Your task to perform on an android device: Go to internet settings Image 0: 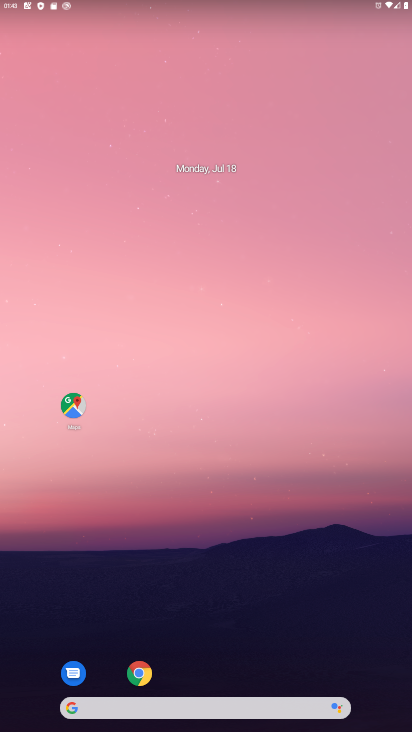
Step 0: drag from (251, 662) to (263, 139)
Your task to perform on an android device: Go to internet settings Image 1: 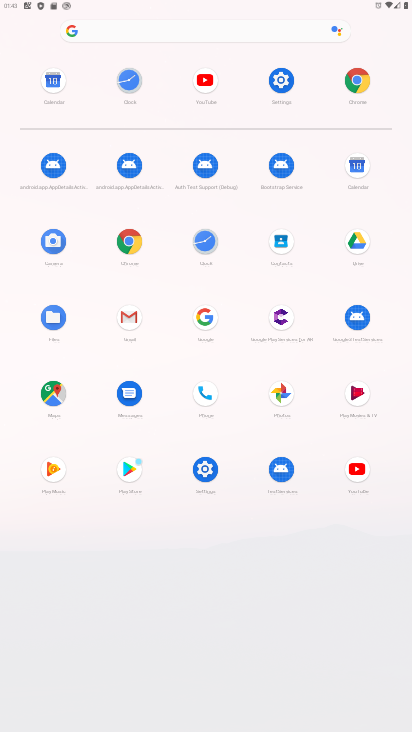
Step 1: click (212, 462)
Your task to perform on an android device: Go to internet settings Image 2: 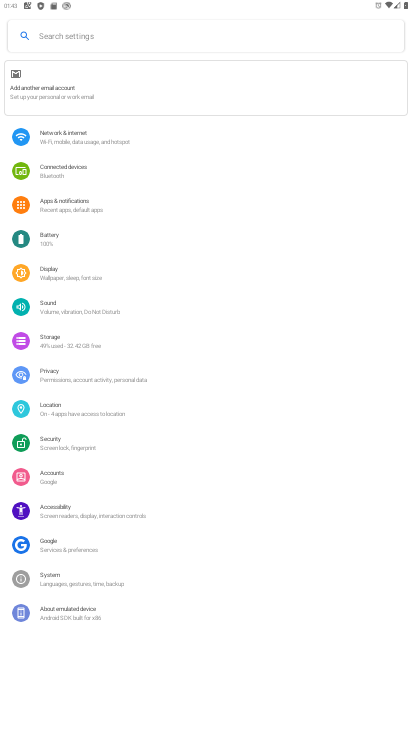
Step 2: click (165, 94)
Your task to perform on an android device: Go to internet settings Image 3: 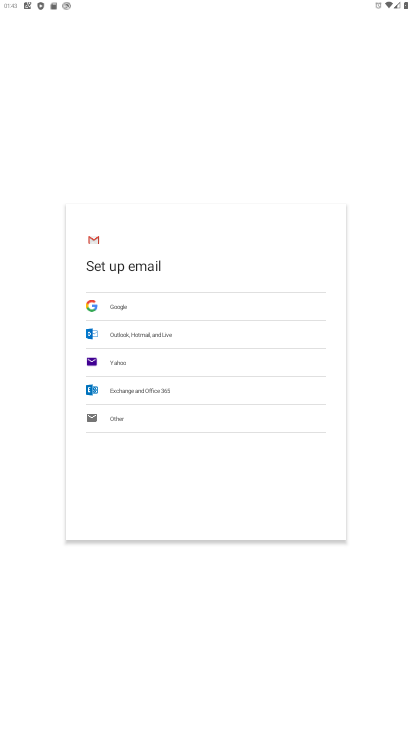
Step 3: press back button
Your task to perform on an android device: Go to internet settings Image 4: 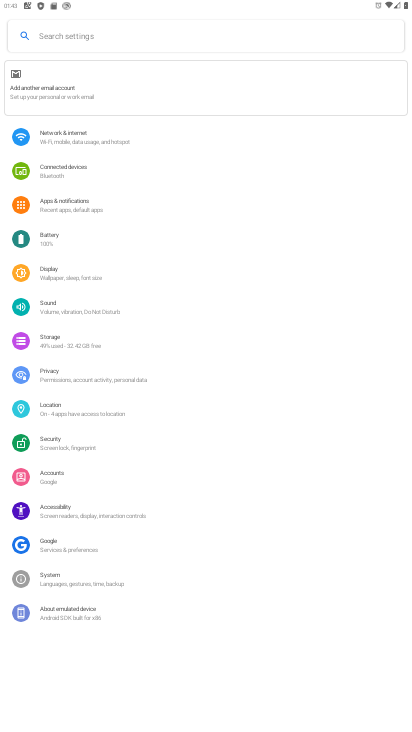
Step 4: click (141, 72)
Your task to perform on an android device: Go to internet settings Image 5: 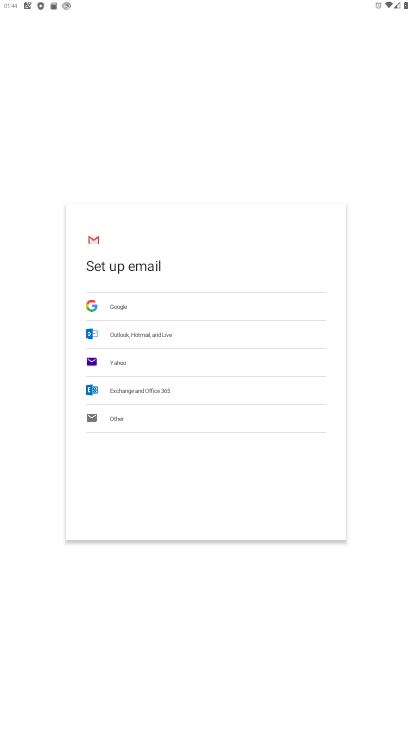
Step 5: press back button
Your task to perform on an android device: Go to internet settings Image 6: 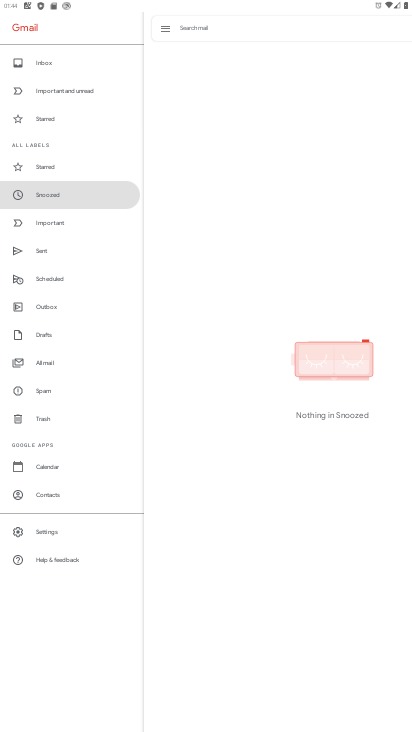
Step 6: press back button
Your task to perform on an android device: Go to internet settings Image 7: 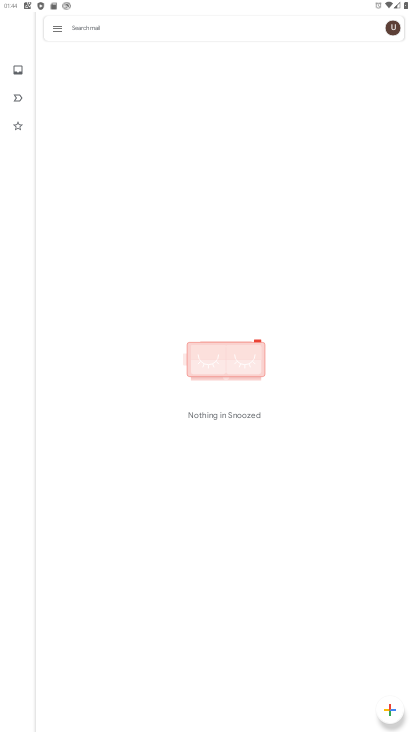
Step 7: press back button
Your task to perform on an android device: Go to internet settings Image 8: 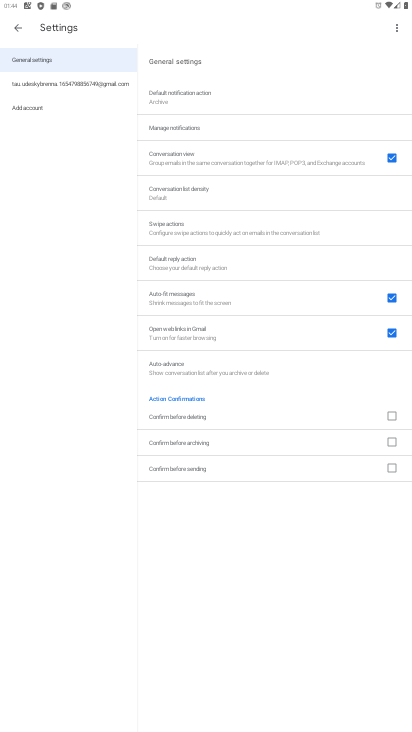
Step 8: press back button
Your task to perform on an android device: Go to internet settings Image 9: 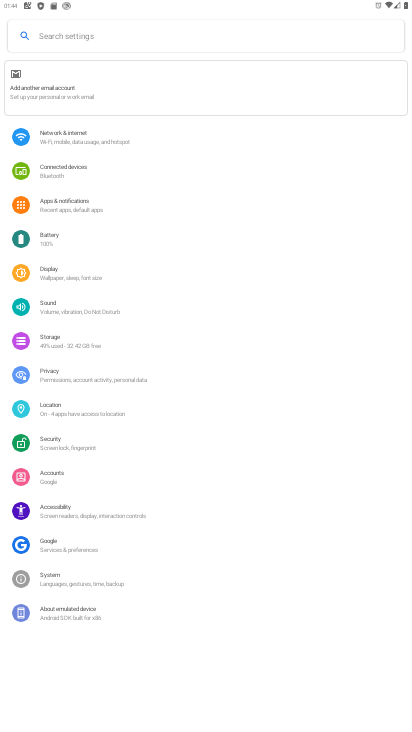
Step 9: click (179, 152)
Your task to perform on an android device: Go to internet settings Image 10: 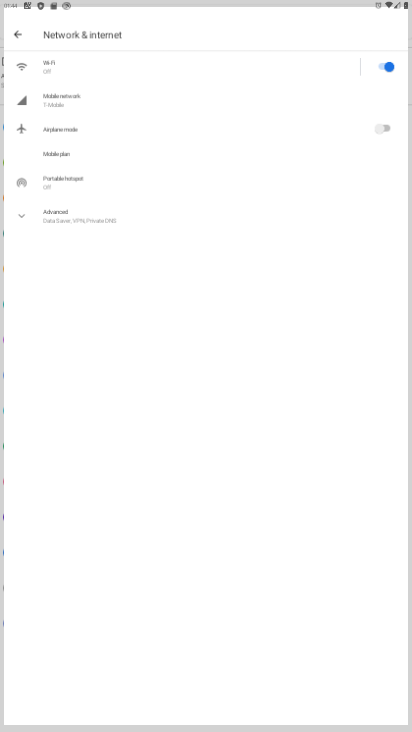
Step 10: task complete